Your task to perform on an android device: Clear all items from cart on amazon. Search for "duracell triple a" on amazon, select the first entry, add it to the cart, then select checkout. Image 0: 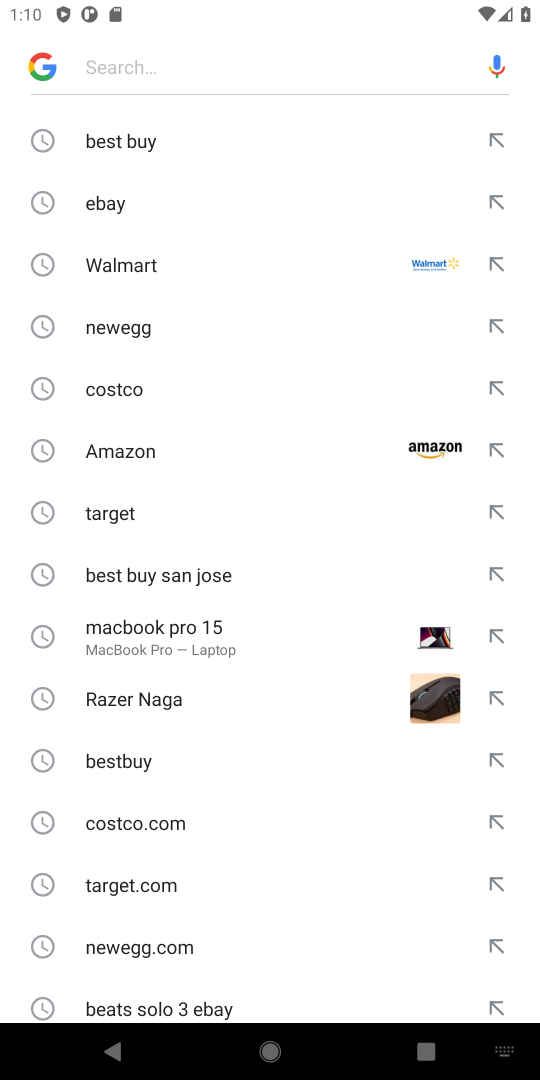
Step 0: press home button
Your task to perform on an android device: Clear all items from cart on amazon. Search for "duracell triple a" on amazon, select the first entry, add it to the cart, then select checkout. Image 1: 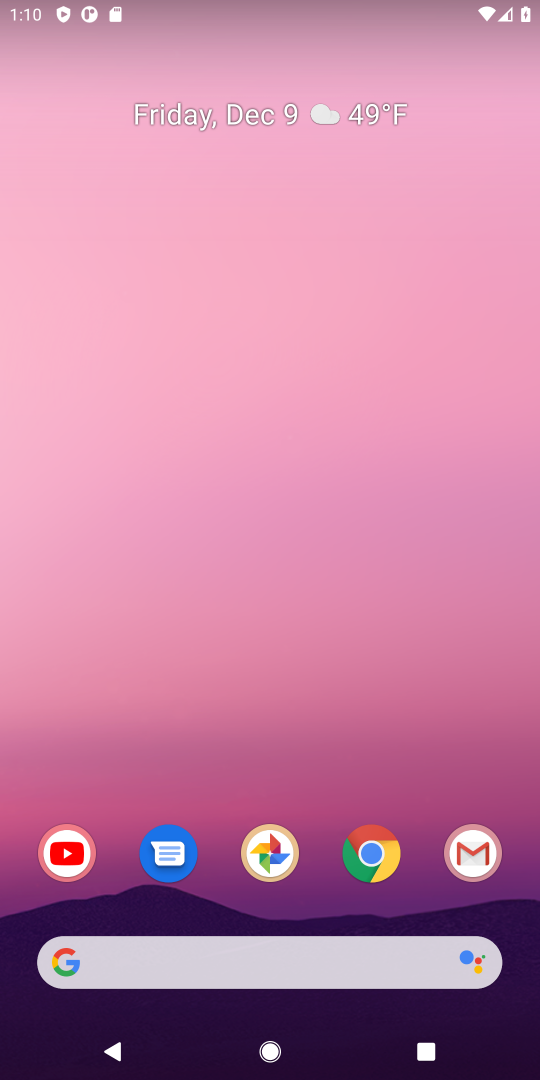
Step 1: drag from (141, 779) to (229, 283)
Your task to perform on an android device: Clear all items from cart on amazon. Search for "duracell triple a" on amazon, select the first entry, add it to the cart, then select checkout. Image 2: 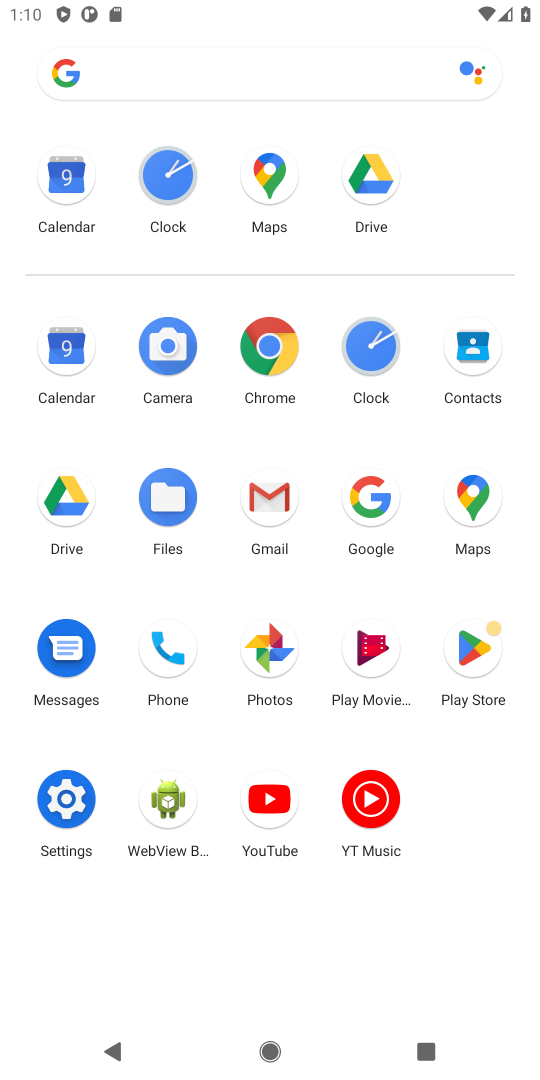
Step 2: click (375, 506)
Your task to perform on an android device: Clear all items from cart on amazon. Search for "duracell triple a" on amazon, select the first entry, add it to the cart, then select checkout. Image 3: 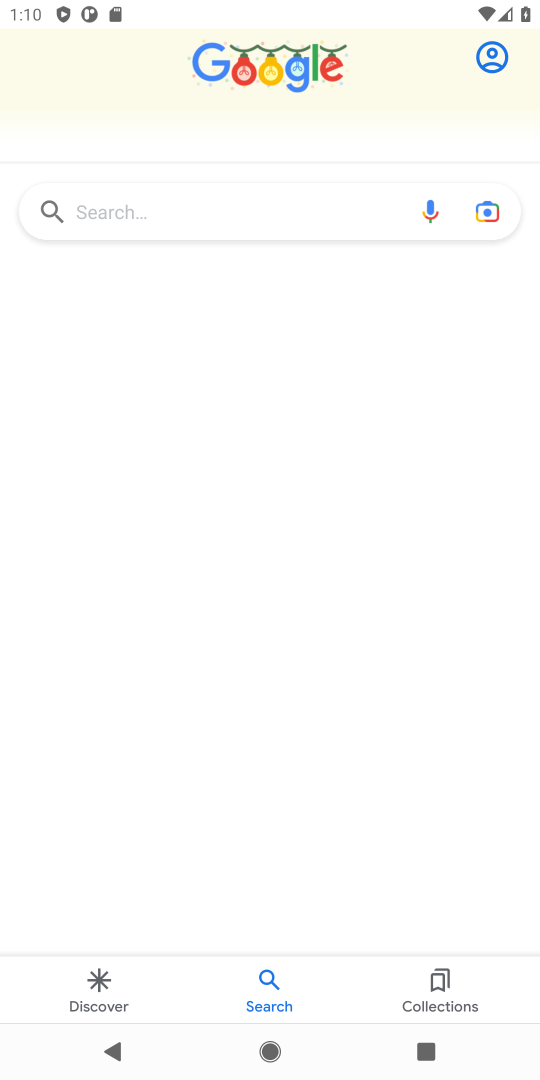
Step 3: click (139, 208)
Your task to perform on an android device: Clear all items from cart on amazon. Search for "duracell triple a" on amazon, select the first entry, add it to the cart, then select checkout. Image 4: 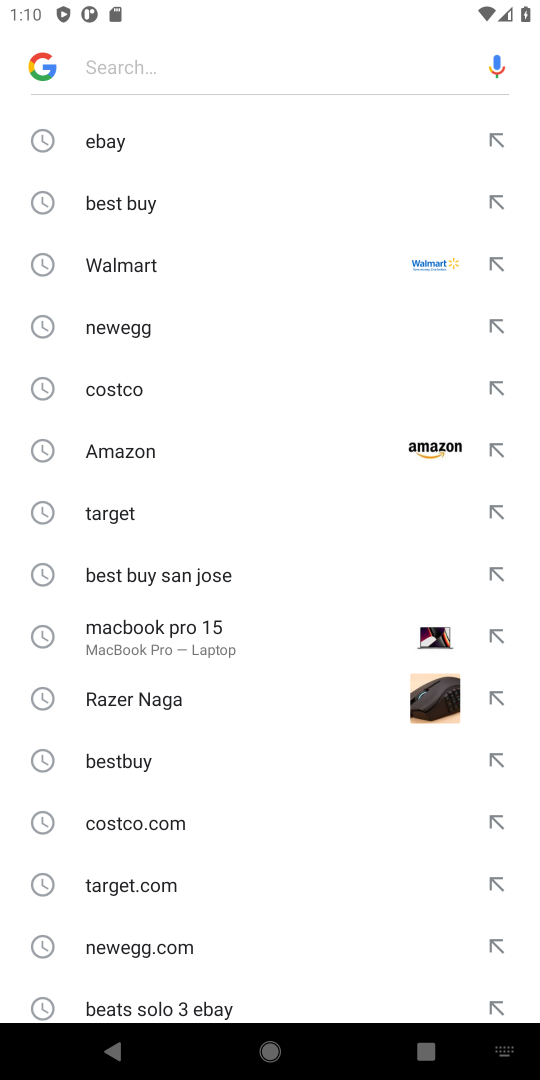
Step 4: click (119, 444)
Your task to perform on an android device: Clear all items from cart on amazon. Search for "duracell triple a" on amazon, select the first entry, add it to the cart, then select checkout. Image 5: 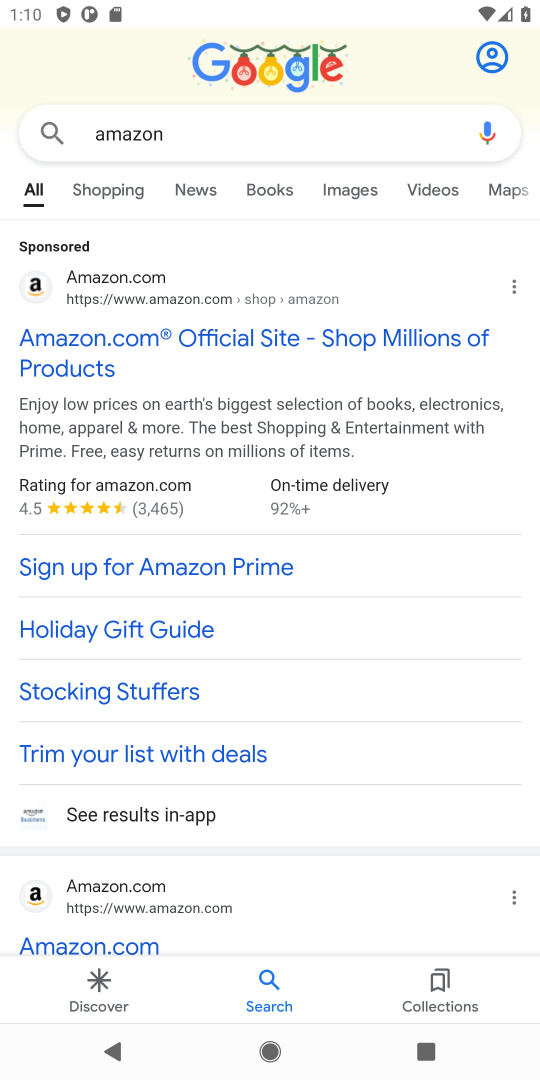
Step 5: click (137, 346)
Your task to perform on an android device: Clear all items from cart on amazon. Search for "duracell triple a" on amazon, select the first entry, add it to the cart, then select checkout. Image 6: 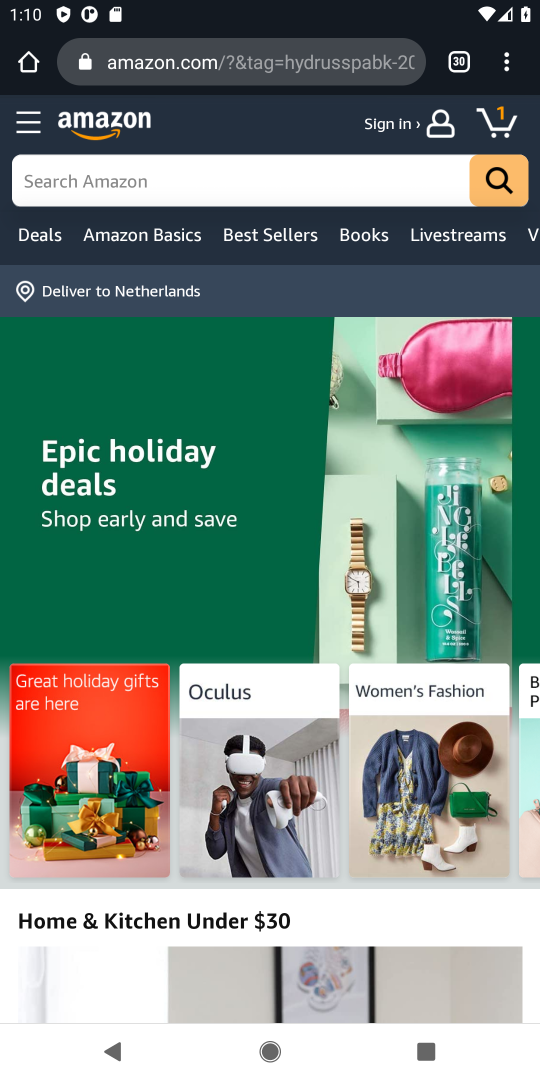
Step 6: click (48, 185)
Your task to perform on an android device: Clear all items from cart on amazon. Search for "duracell triple a" on amazon, select the first entry, add it to the cart, then select checkout. Image 7: 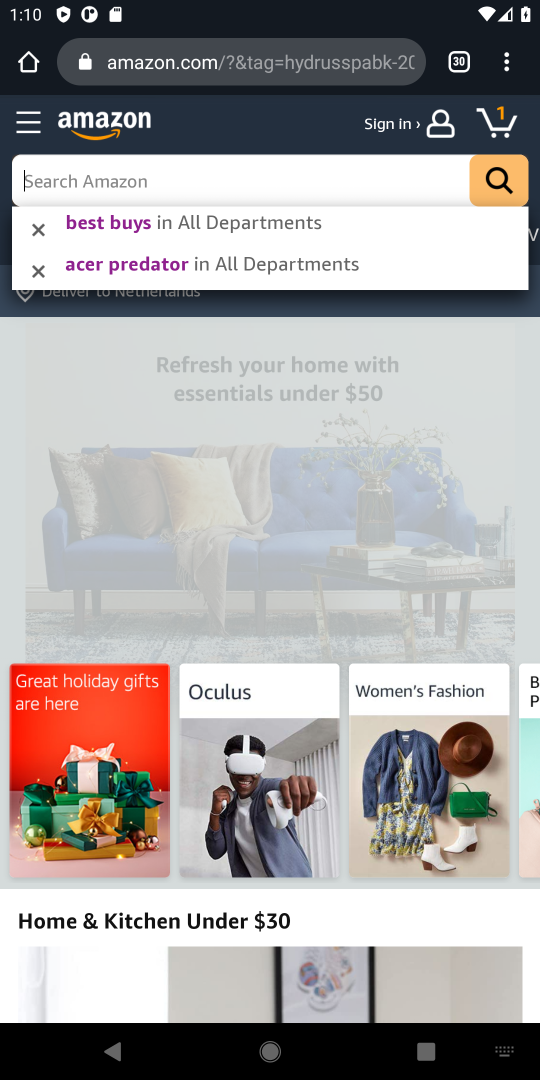
Step 7: click (499, 126)
Your task to perform on an android device: Clear all items from cart on amazon. Search for "duracell triple a" on amazon, select the first entry, add it to the cart, then select checkout. Image 8: 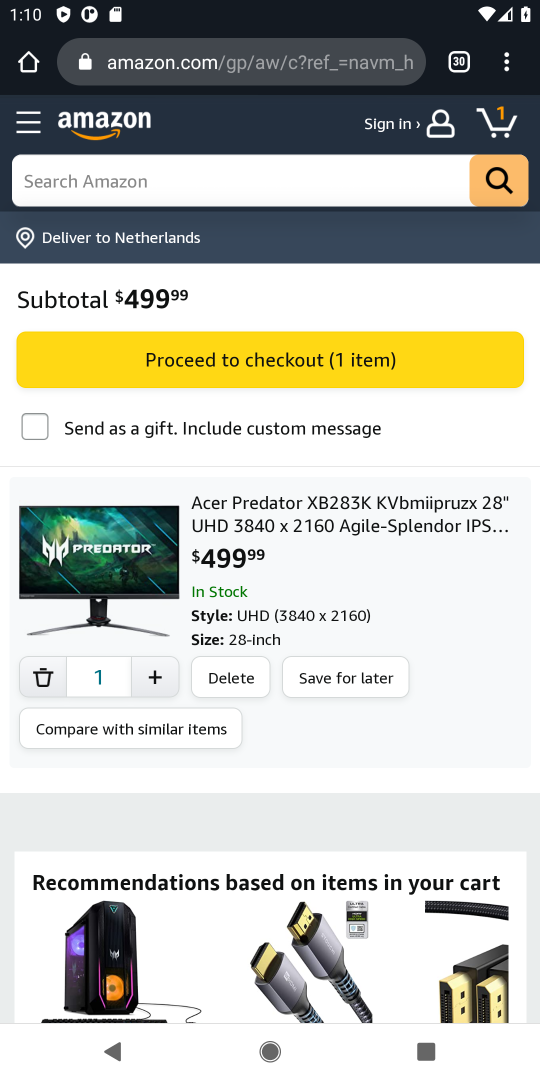
Step 8: click (318, 677)
Your task to perform on an android device: Clear all items from cart on amazon. Search for "duracell triple a" on amazon, select the first entry, add it to the cart, then select checkout. Image 9: 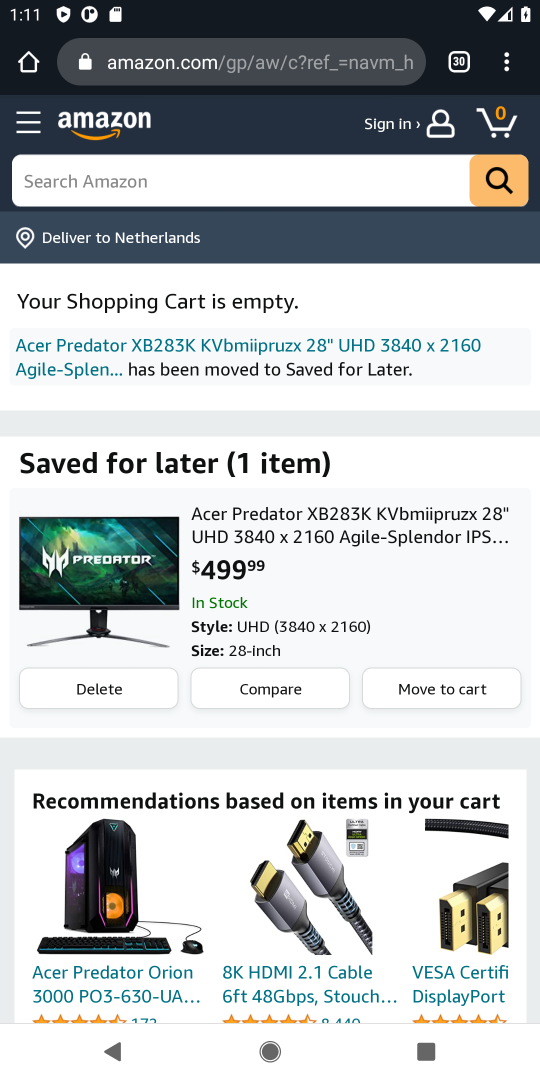
Step 9: click (118, 690)
Your task to perform on an android device: Clear all items from cart on amazon. Search for "duracell triple a" on amazon, select the first entry, add it to the cart, then select checkout. Image 10: 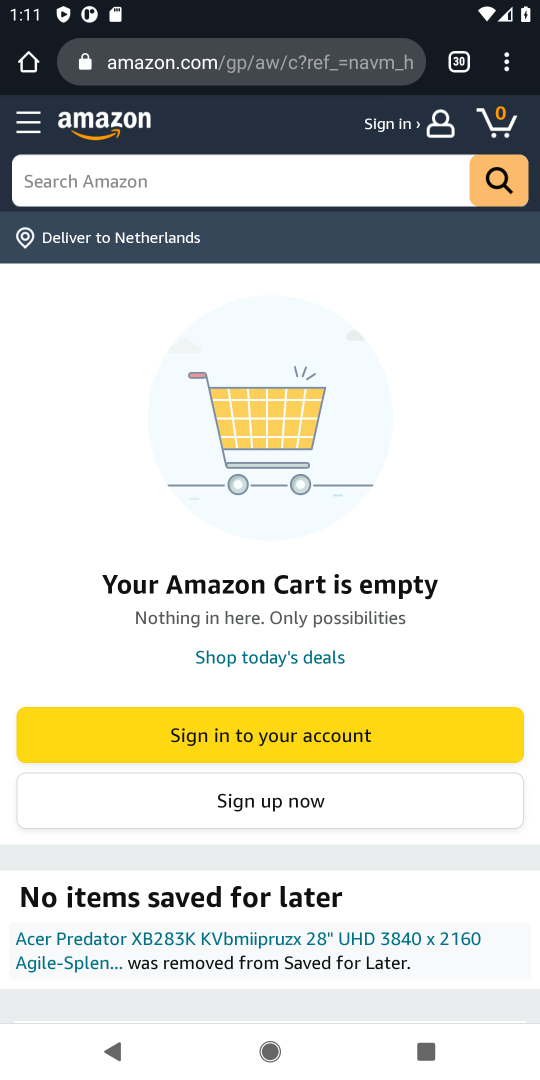
Step 10: click (93, 174)
Your task to perform on an android device: Clear all items from cart on amazon. Search for "duracell triple a" on amazon, select the first entry, add it to the cart, then select checkout. Image 11: 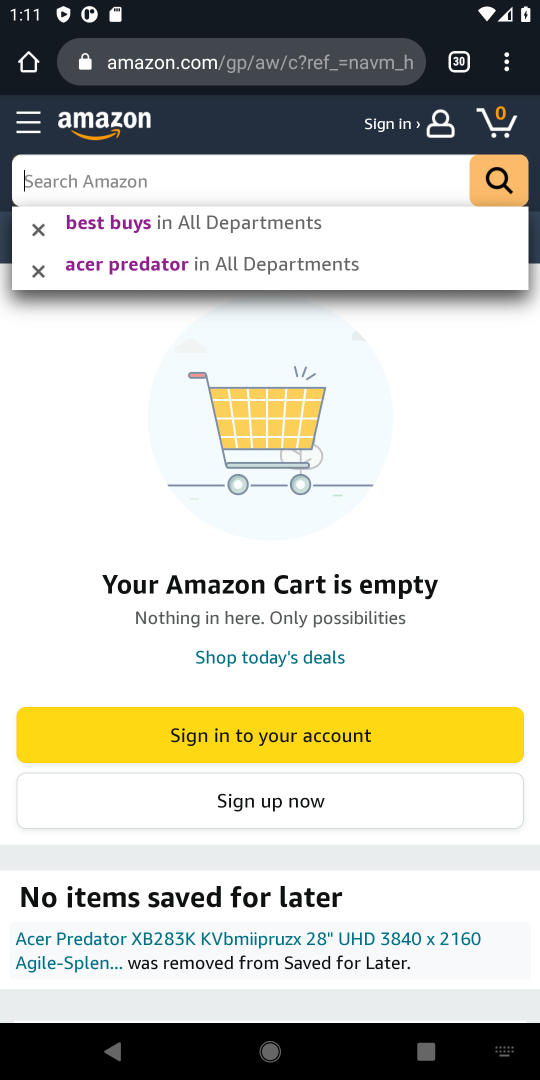
Step 11: type "duracell triple a"
Your task to perform on an android device: Clear all items from cart on amazon. Search for "duracell triple a" on amazon, select the first entry, add it to the cart, then select checkout. Image 12: 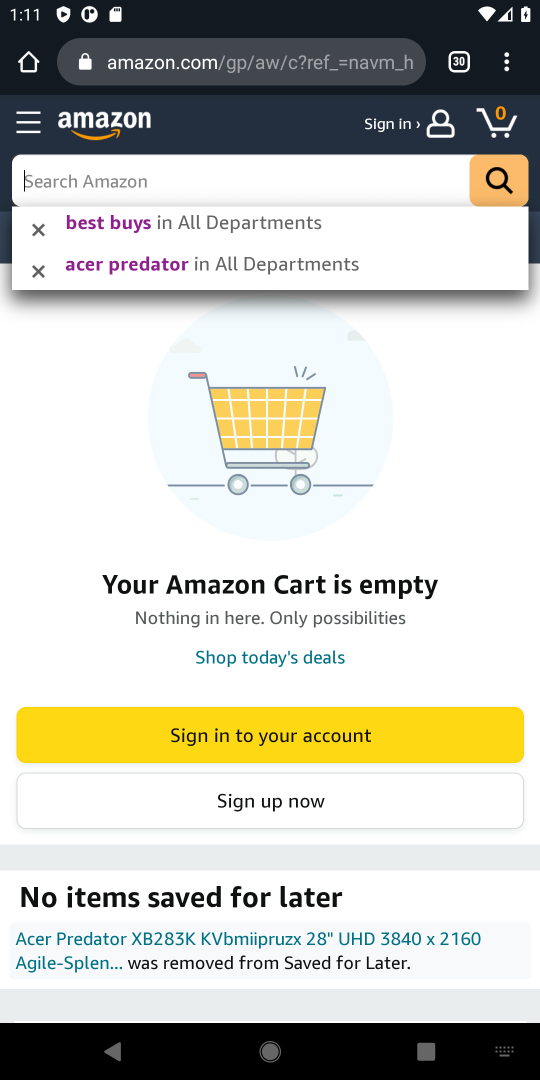
Step 12: click (504, 171)
Your task to perform on an android device: Clear all items from cart on amazon. Search for "duracell triple a" on amazon, select the first entry, add it to the cart, then select checkout. Image 13: 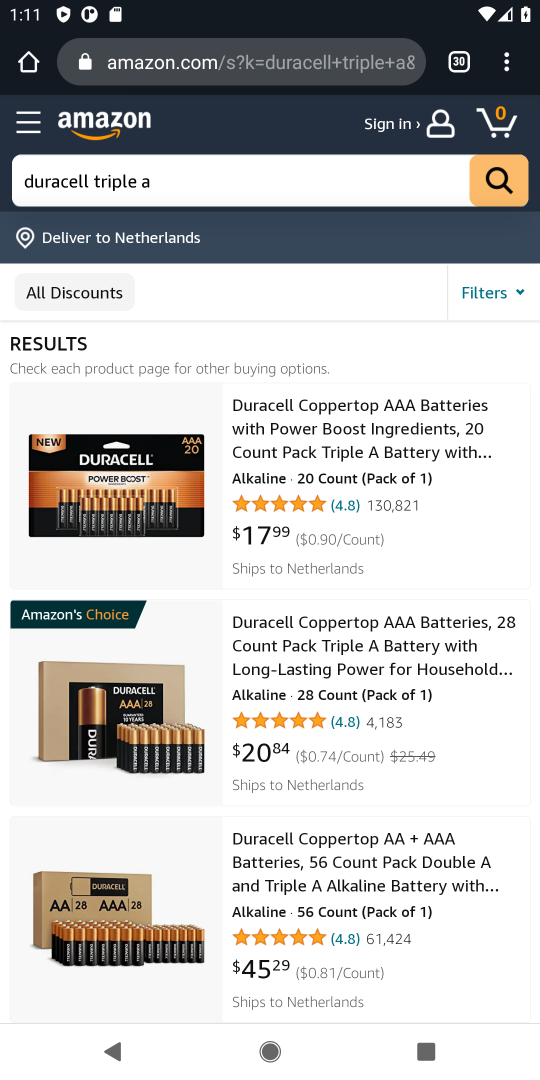
Step 13: click (316, 455)
Your task to perform on an android device: Clear all items from cart on amazon. Search for "duracell triple a" on amazon, select the first entry, add it to the cart, then select checkout. Image 14: 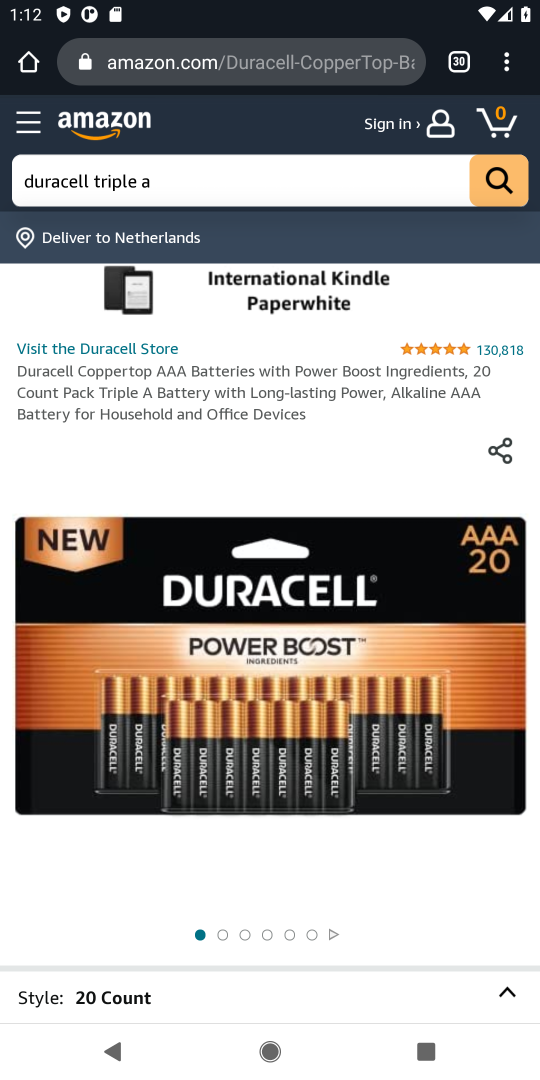
Step 14: drag from (181, 647) to (172, 375)
Your task to perform on an android device: Clear all items from cart on amazon. Search for "duracell triple a" on amazon, select the first entry, add it to the cart, then select checkout. Image 15: 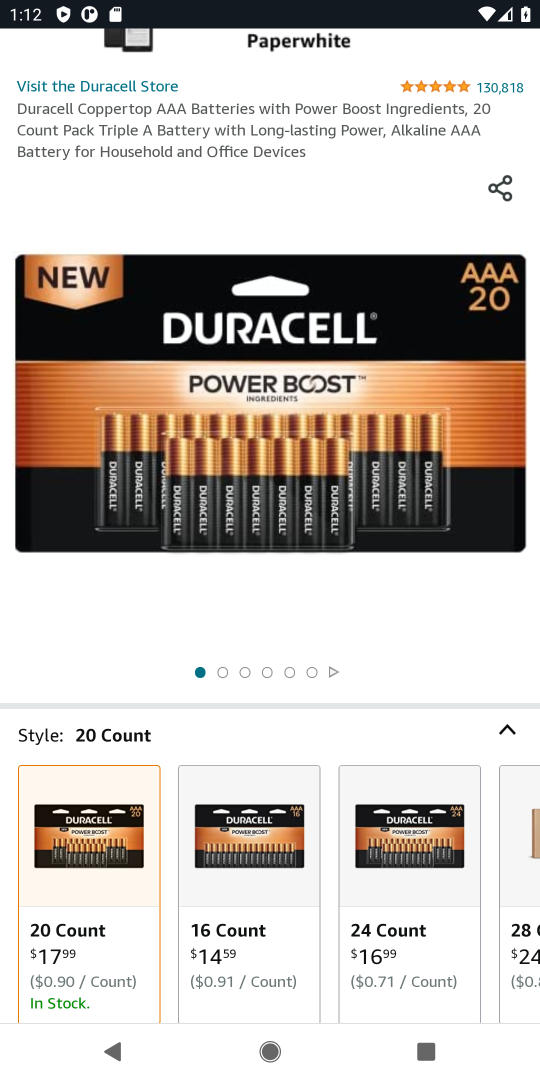
Step 15: drag from (231, 783) to (188, 424)
Your task to perform on an android device: Clear all items from cart on amazon. Search for "duracell triple a" on amazon, select the first entry, add it to the cart, then select checkout. Image 16: 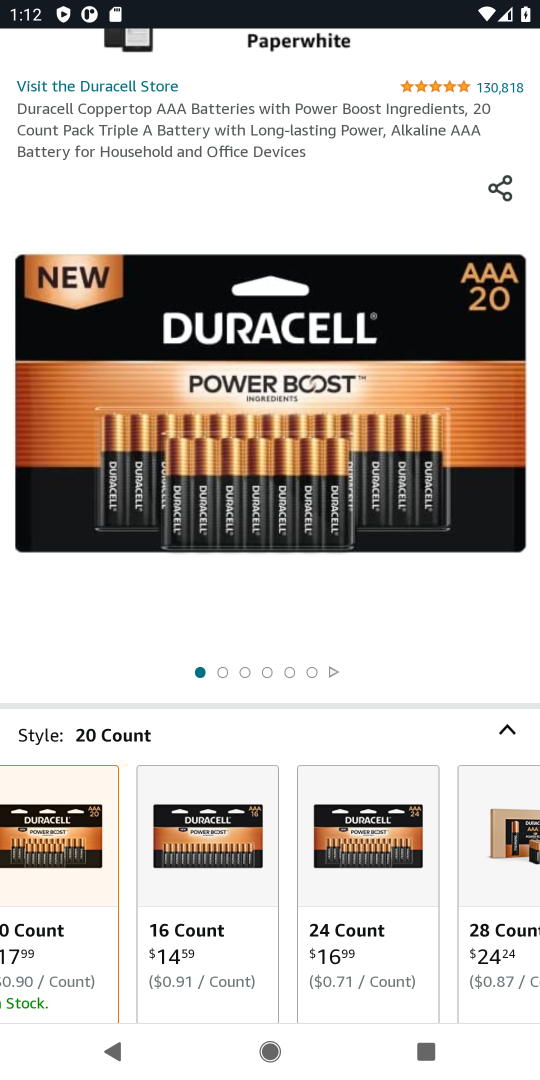
Step 16: drag from (262, 920) to (282, 515)
Your task to perform on an android device: Clear all items from cart on amazon. Search for "duracell triple a" on amazon, select the first entry, add it to the cart, then select checkout. Image 17: 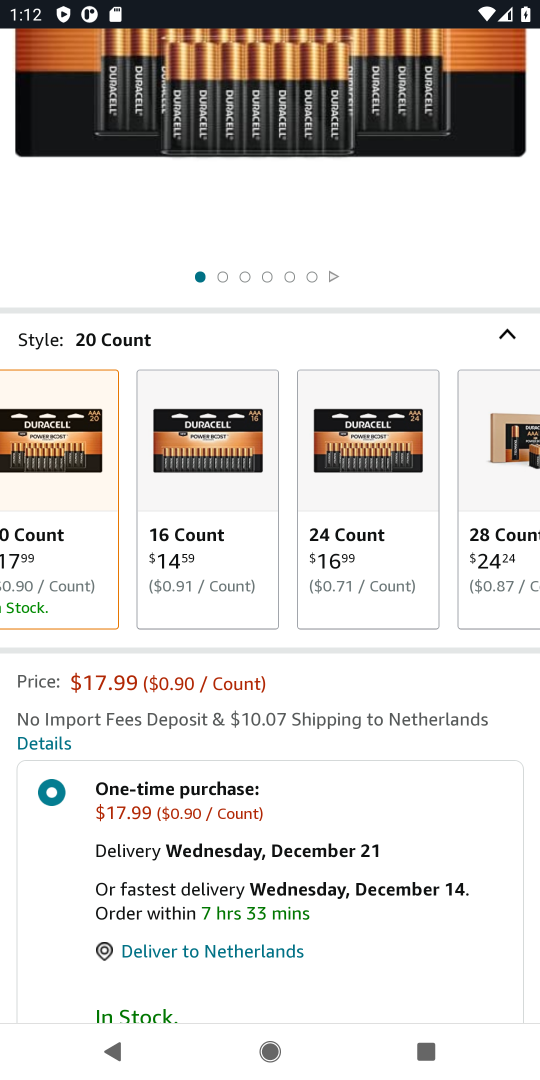
Step 17: drag from (273, 911) to (253, 491)
Your task to perform on an android device: Clear all items from cart on amazon. Search for "duracell triple a" on amazon, select the first entry, add it to the cart, then select checkout. Image 18: 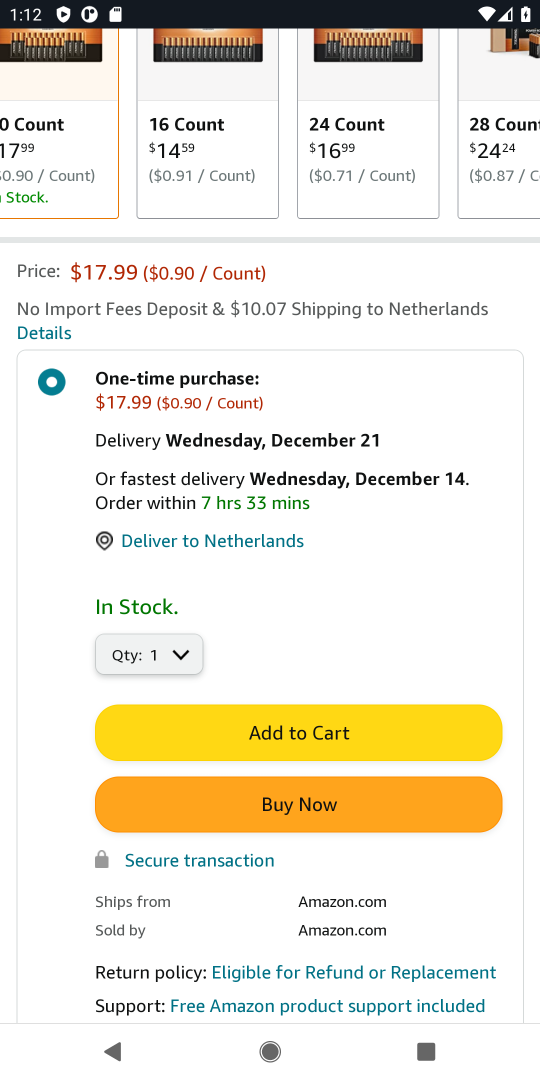
Step 18: click (274, 734)
Your task to perform on an android device: Clear all items from cart on amazon. Search for "duracell triple a" on amazon, select the first entry, add it to the cart, then select checkout. Image 19: 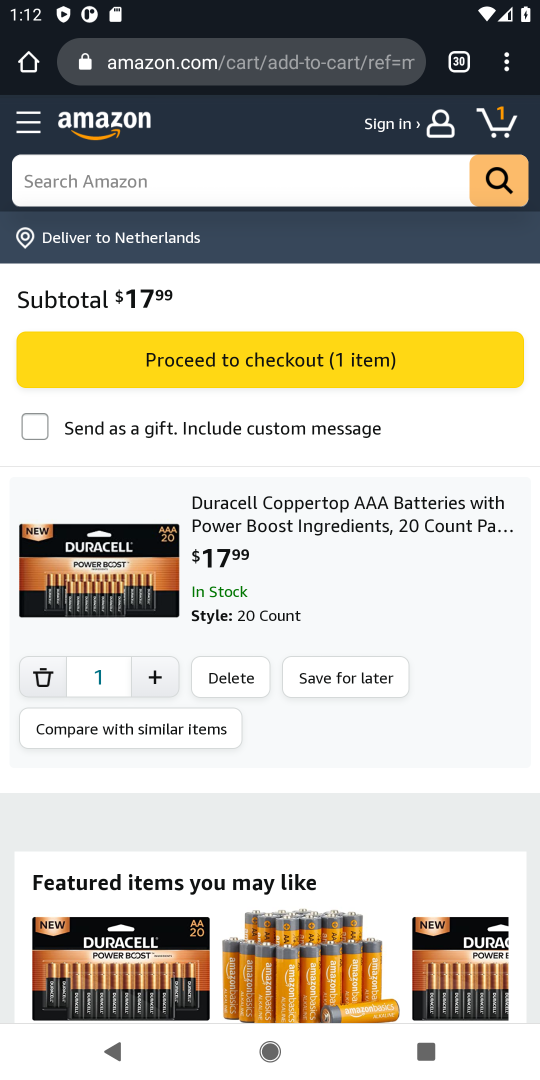
Step 19: click (290, 369)
Your task to perform on an android device: Clear all items from cart on amazon. Search for "duracell triple a" on amazon, select the first entry, add it to the cart, then select checkout. Image 20: 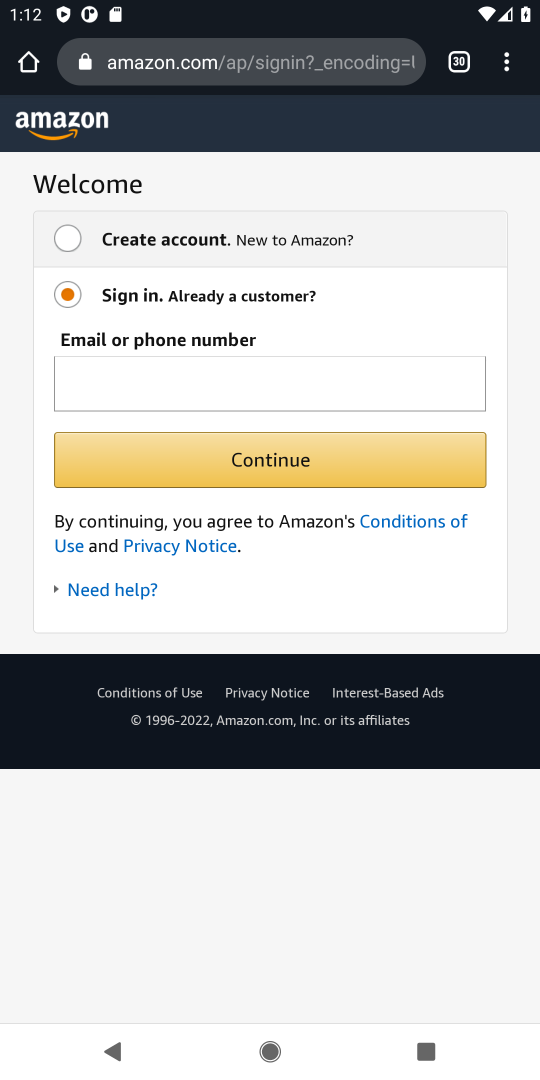
Step 20: task complete